Your task to perform on an android device: Open sound settings Image 0: 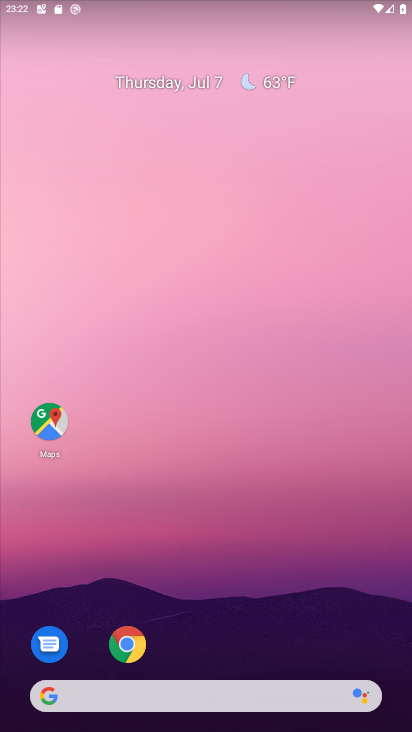
Step 0: drag from (237, 729) to (207, 193)
Your task to perform on an android device: Open sound settings Image 1: 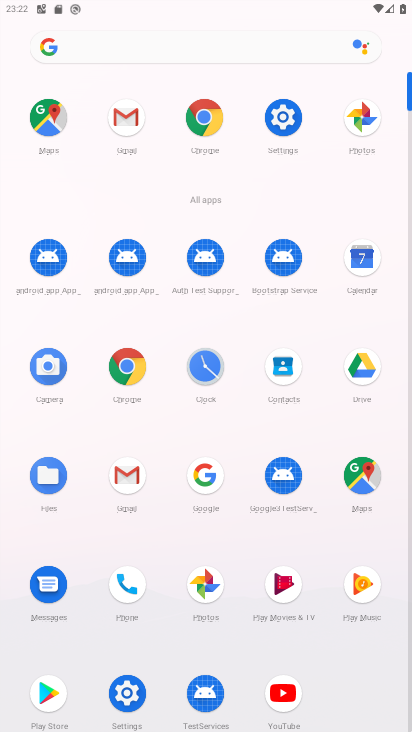
Step 1: click (284, 112)
Your task to perform on an android device: Open sound settings Image 2: 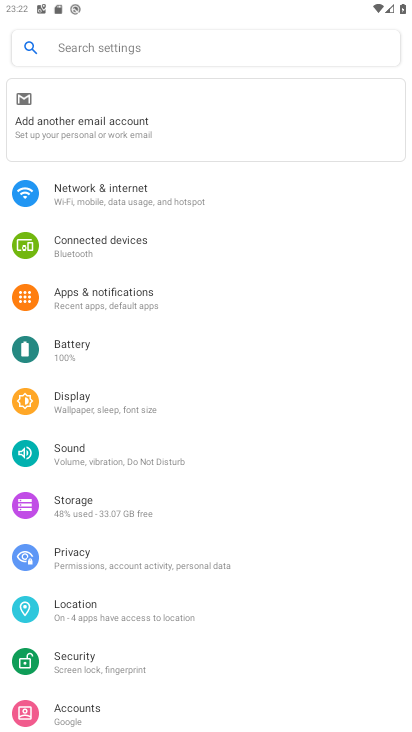
Step 2: click (70, 452)
Your task to perform on an android device: Open sound settings Image 3: 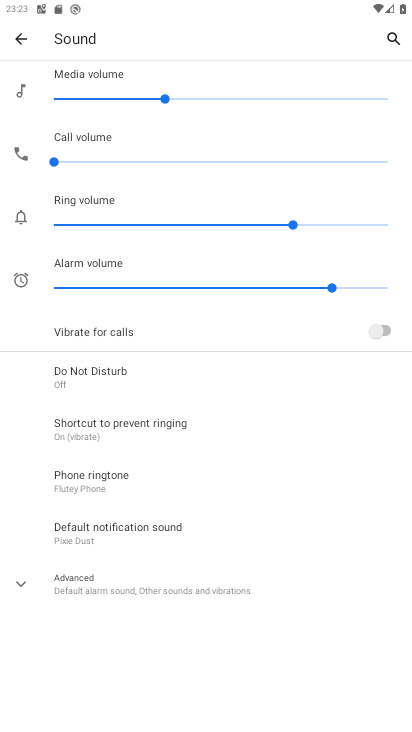
Step 3: task complete